Your task to perform on an android device: Do I have any events this weekend? Image 0: 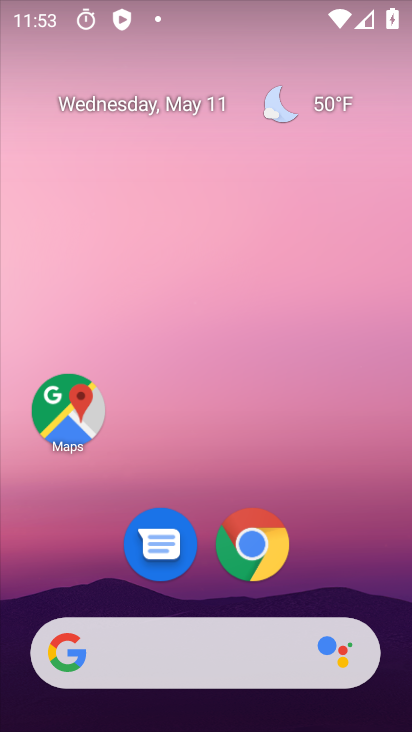
Step 0: drag from (246, 622) to (249, 213)
Your task to perform on an android device: Do I have any events this weekend? Image 1: 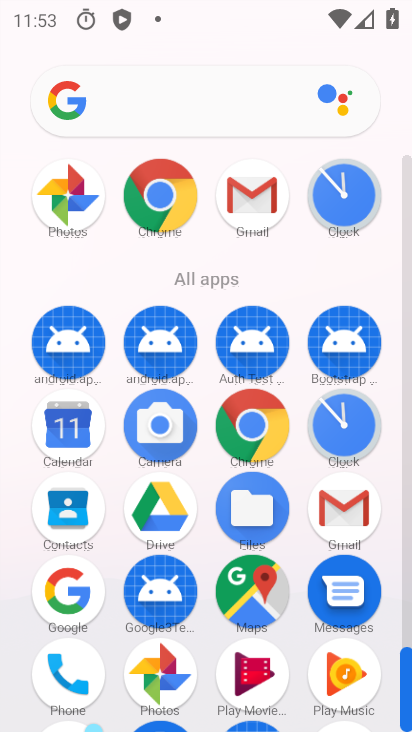
Step 1: click (76, 447)
Your task to perform on an android device: Do I have any events this weekend? Image 2: 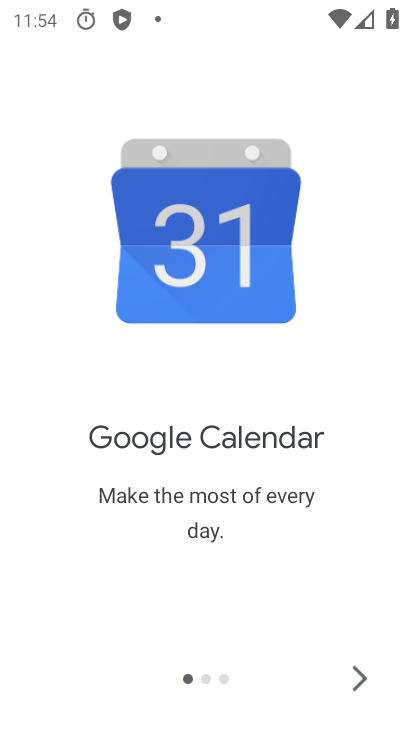
Step 2: click (371, 675)
Your task to perform on an android device: Do I have any events this weekend? Image 3: 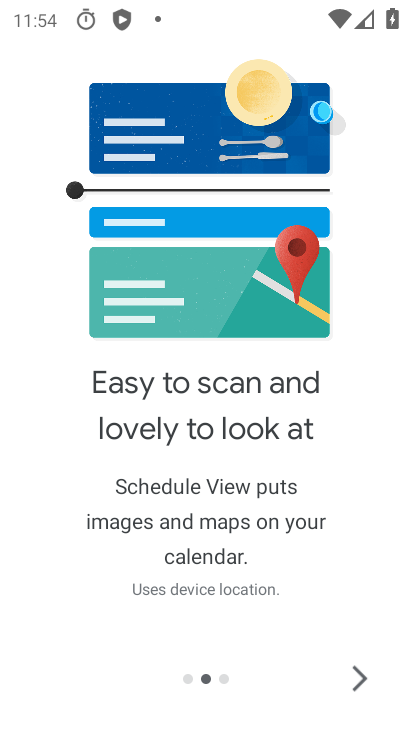
Step 3: click (371, 675)
Your task to perform on an android device: Do I have any events this weekend? Image 4: 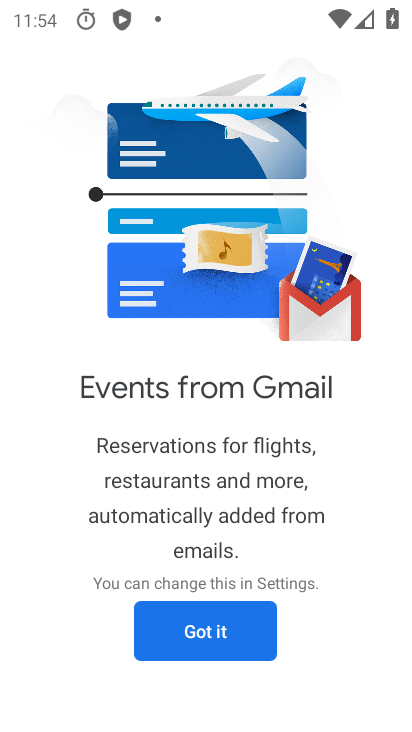
Step 4: click (183, 647)
Your task to perform on an android device: Do I have any events this weekend? Image 5: 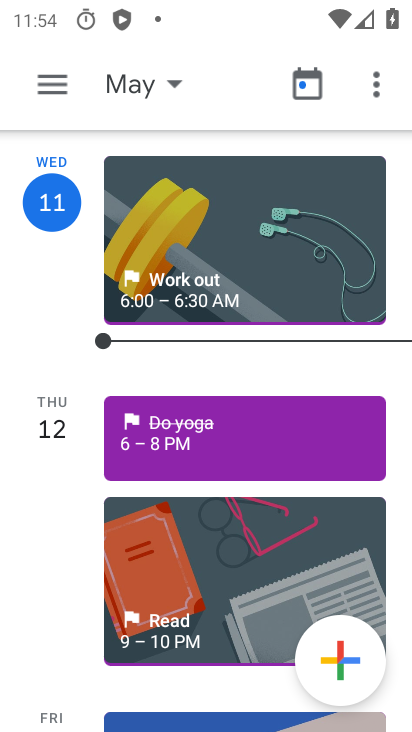
Step 5: click (58, 82)
Your task to perform on an android device: Do I have any events this weekend? Image 6: 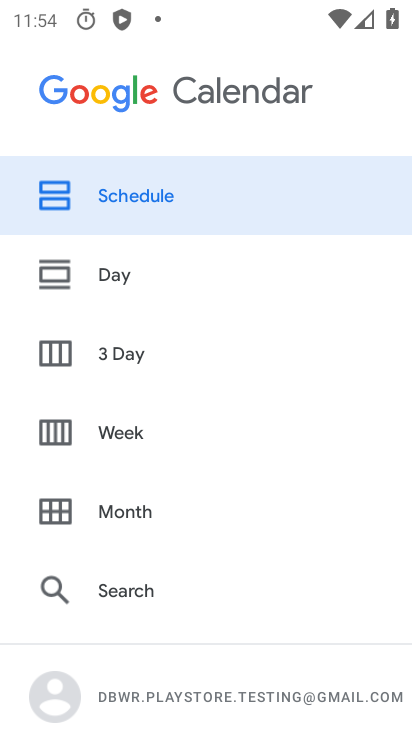
Step 6: click (160, 427)
Your task to perform on an android device: Do I have any events this weekend? Image 7: 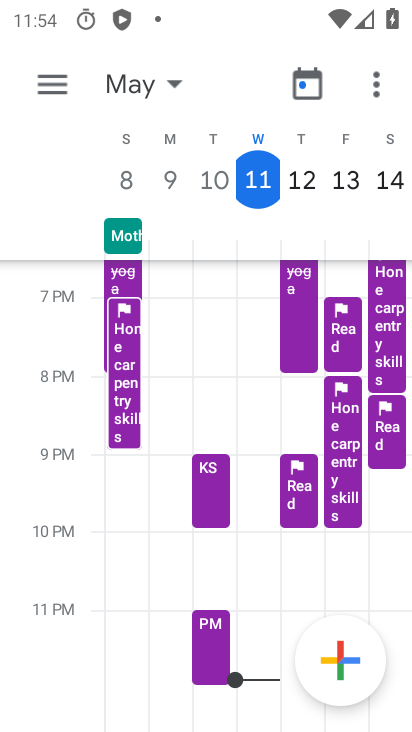
Step 7: task complete